Your task to perform on an android device: Go to privacy settings Image 0: 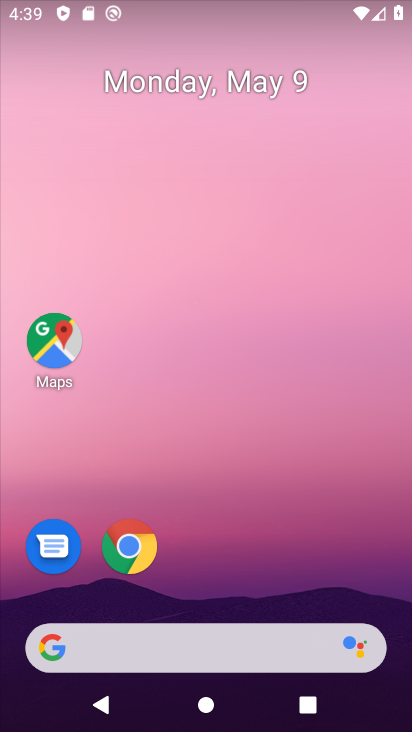
Step 0: drag from (210, 577) to (293, 76)
Your task to perform on an android device: Go to privacy settings Image 1: 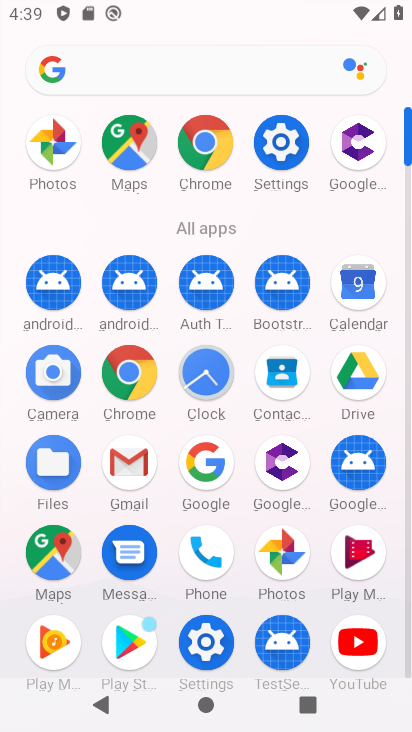
Step 1: click (203, 641)
Your task to perform on an android device: Go to privacy settings Image 2: 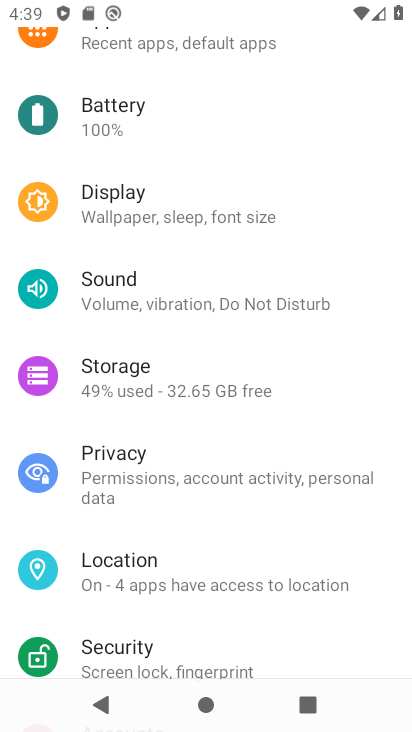
Step 2: click (169, 347)
Your task to perform on an android device: Go to privacy settings Image 3: 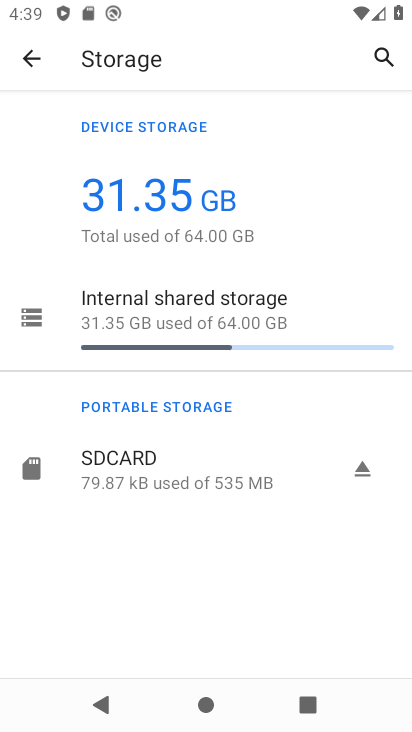
Step 3: click (37, 60)
Your task to perform on an android device: Go to privacy settings Image 4: 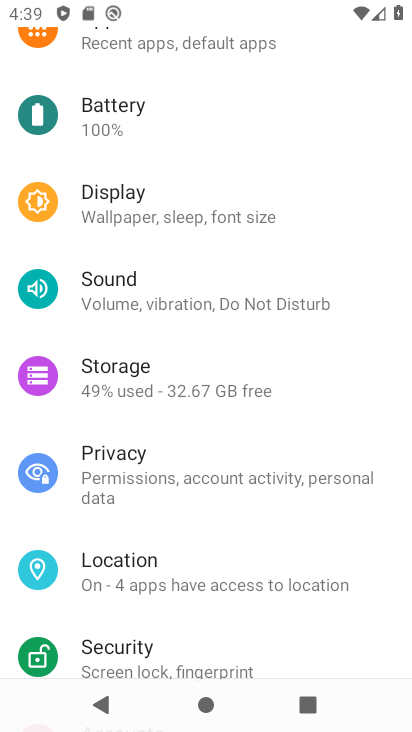
Step 4: click (157, 491)
Your task to perform on an android device: Go to privacy settings Image 5: 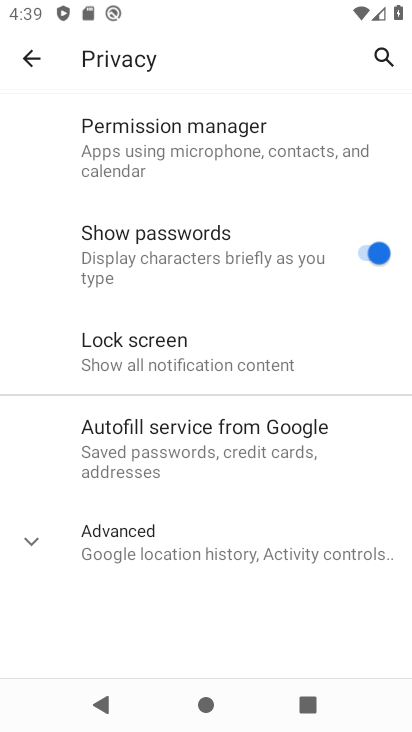
Step 5: task complete